Your task to perform on an android device: turn on priority inbox in the gmail app Image 0: 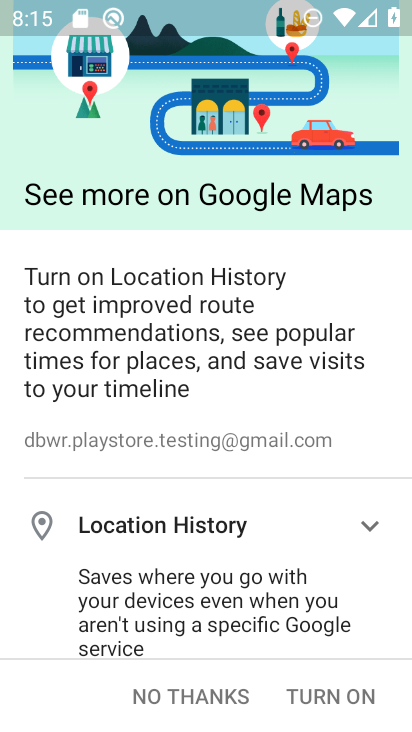
Step 0: press home button
Your task to perform on an android device: turn on priority inbox in the gmail app Image 1: 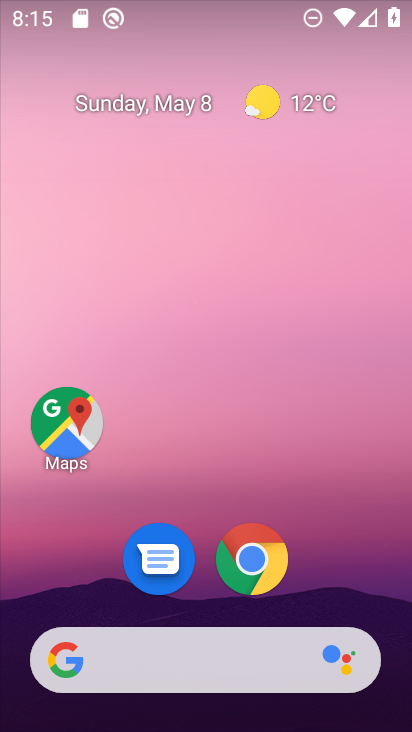
Step 1: drag from (330, 462) to (305, 0)
Your task to perform on an android device: turn on priority inbox in the gmail app Image 2: 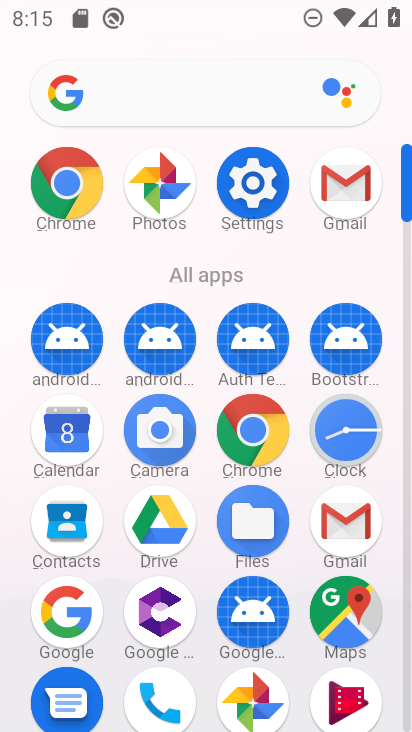
Step 2: click (334, 189)
Your task to perform on an android device: turn on priority inbox in the gmail app Image 3: 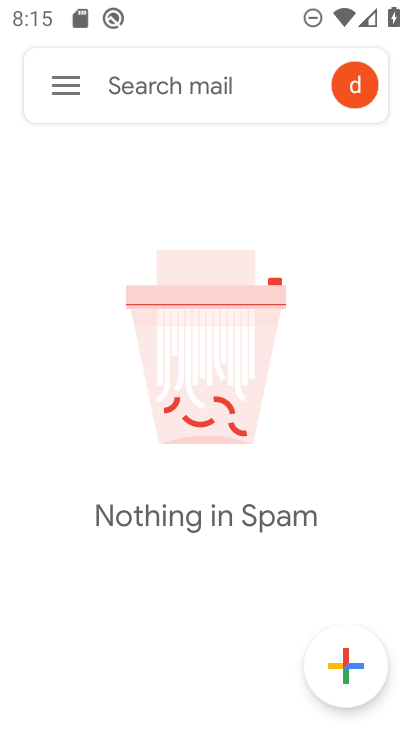
Step 3: click (55, 93)
Your task to perform on an android device: turn on priority inbox in the gmail app Image 4: 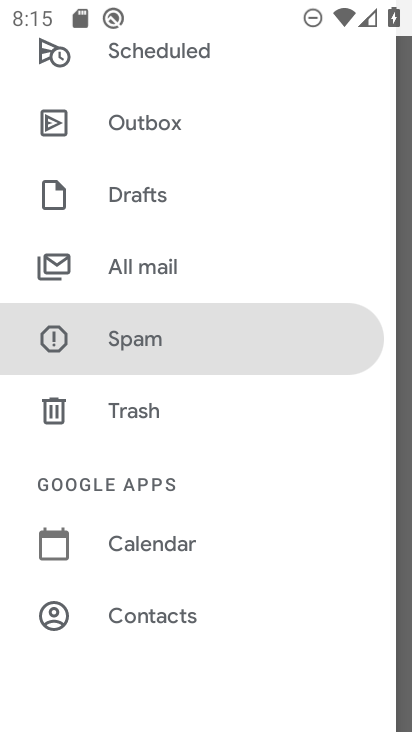
Step 4: drag from (256, 616) to (252, 172)
Your task to perform on an android device: turn on priority inbox in the gmail app Image 5: 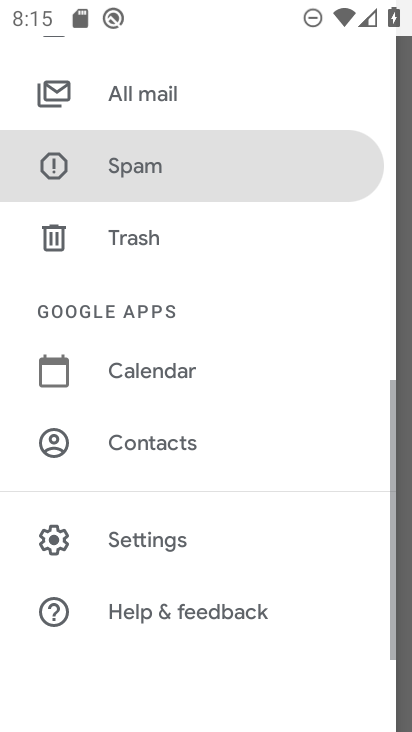
Step 5: click (186, 539)
Your task to perform on an android device: turn on priority inbox in the gmail app Image 6: 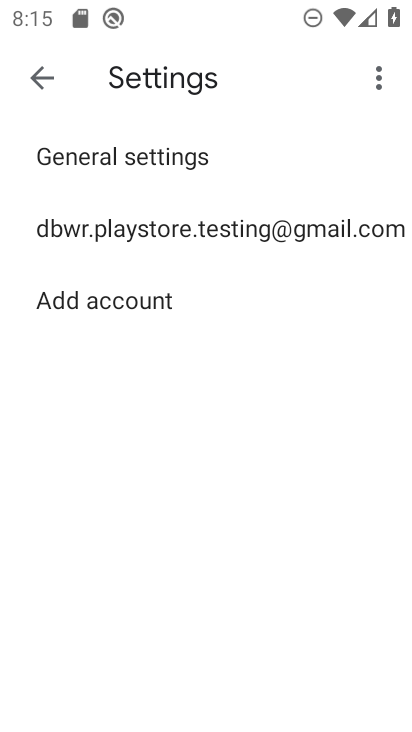
Step 6: click (122, 244)
Your task to perform on an android device: turn on priority inbox in the gmail app Image 7: 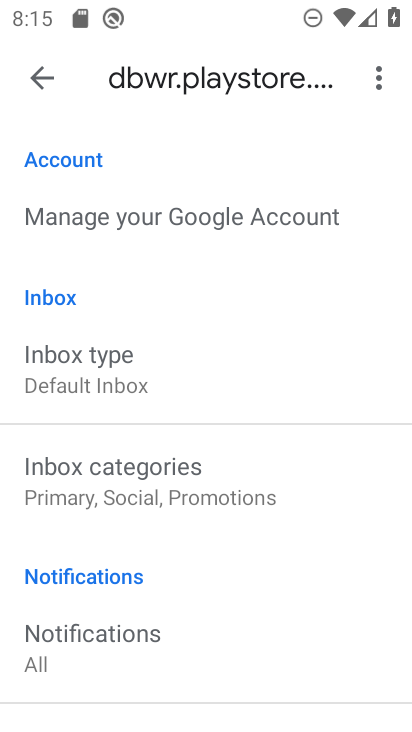
Step 7: click (79, 375)
Your task to perform on an android device: turn on priority inbox in the gmail app Image 8: 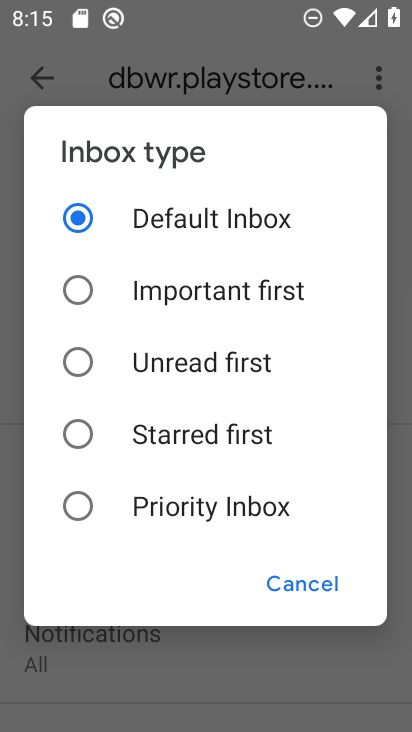
Step 8: click (79, 503)
Your task to perform on an android device: turn on priority inbox in the gmail app Image 9: 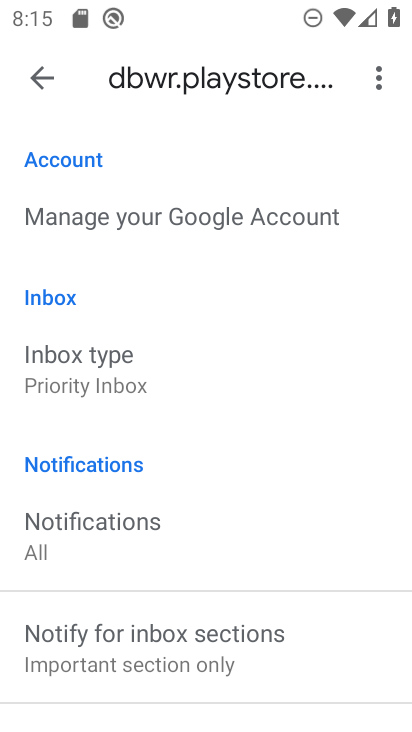
Step 9: task complete